Your task to perform on an android device: open a new tab in the chrome app Image 0: 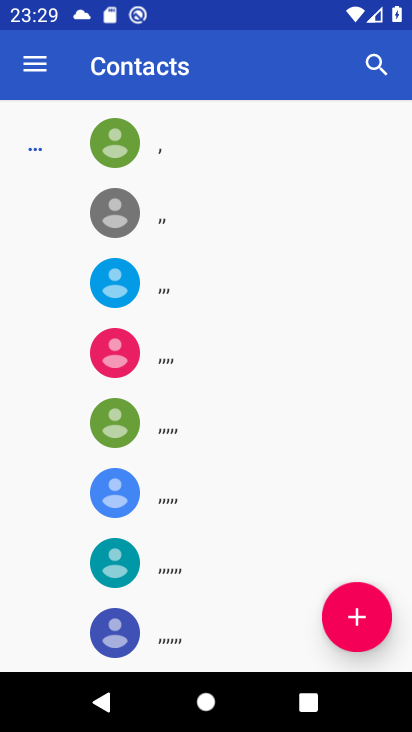
Step 0: press home button
Your task to perform on an android device: open a new tab in the chrome app Image 1: 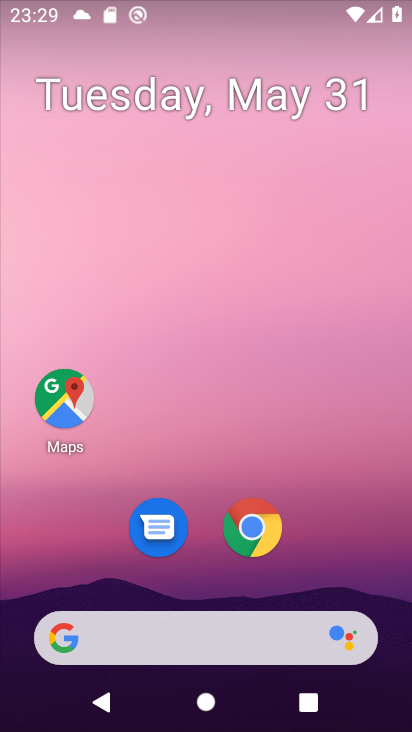
Step 1: click (255, 539)
Your task to perform on an android device: open a new tab in the chrome app Image 2: 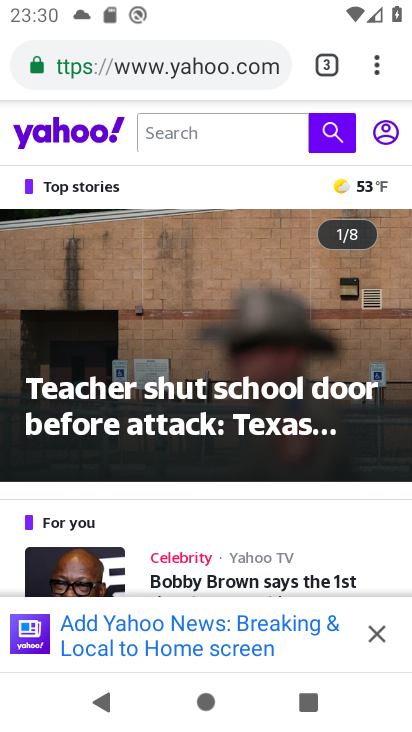
Step 2: click (371, 64)
Your task to perform on an android device: open a new tab in the chrome app Image 3: 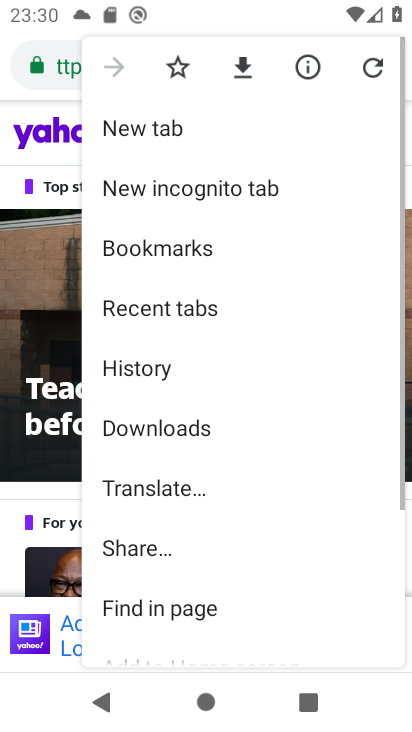
Step 3: click (181, 123)
Your task to perform on an android device: open a new tab in the chrome app Image 4: 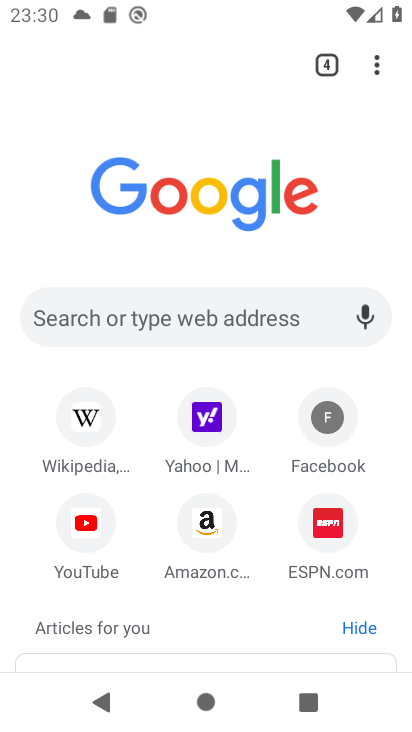
Step 4: task complete